Your task to perform on an android device: Search for seafood restaurants on Google Maps Image 0: 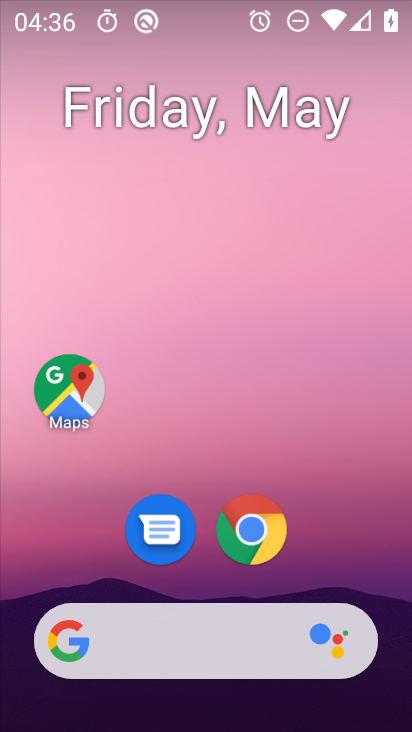
Step 0: click (58, 381)
Your task to perform on an android device: Search for seafood restaurants on Google Maps Image 1: 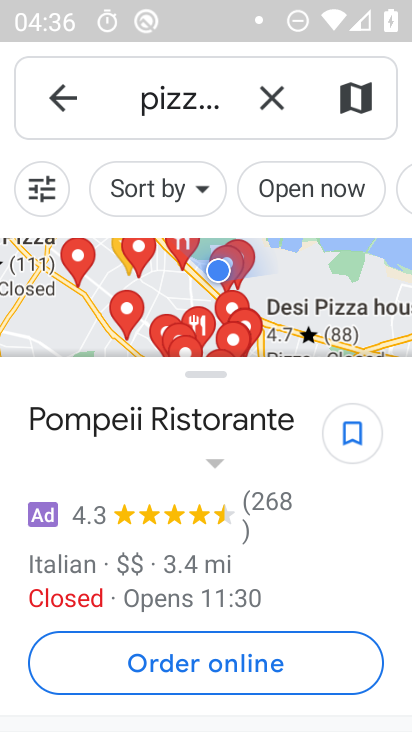
Step 1: click (258, 101)
Your task to perform on an android device: Search for seafood restaurants on Google Maps Image 2: 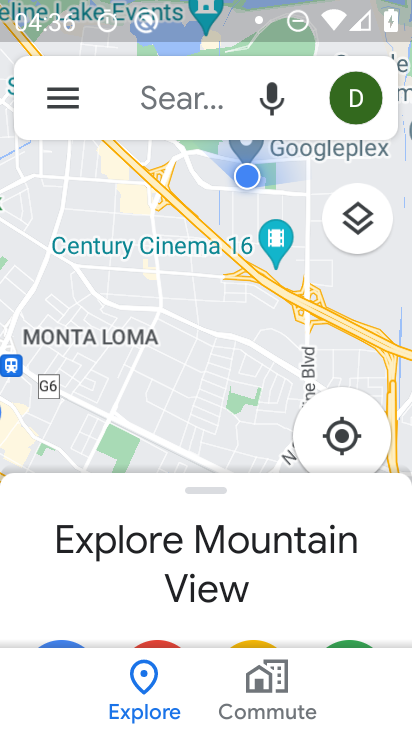
Step 2: click (130, 95)
Your task to perform on an android device: Search for seafood restaurants on Google Maps Image 3: 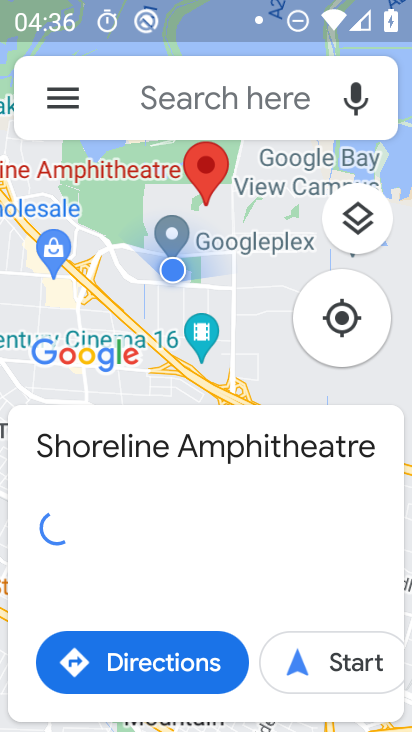
Step 3: click (148, 100)
Your task to perform on an android device: Search for seafood restaurants on Google Maps Image 4: 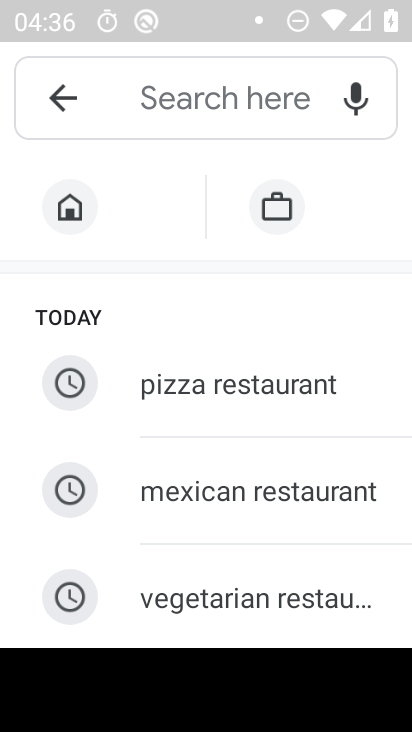
Step 4: type "seafood restaurants "
Your task to perform on an android device: Search for seafood restaurants on Google Maps Image 5: 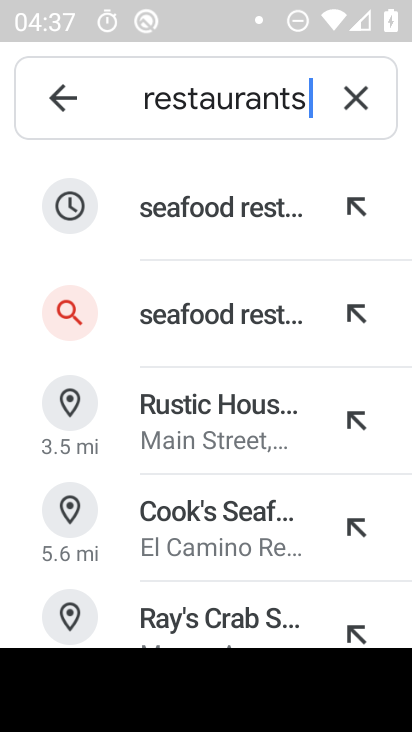
Step 5: click (207, 213)
Your task to perform on an android device: Search for seafood restaurants on Google Maps Image 6: 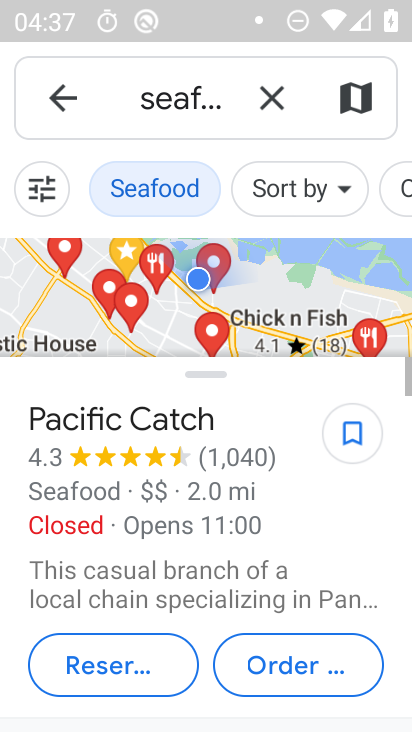
Step 6: task complete